Your task to perform on an android device: read, delete, or share a saved page in the chrome app Image 0: 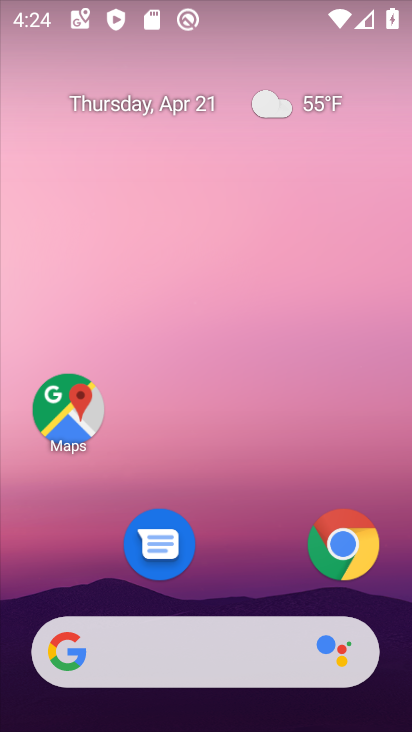
Step 0: drag from (254, 590) to (265, 178)
Your task to perform on an android device: read, delete, or share a saved page in the chrome app Image 1: 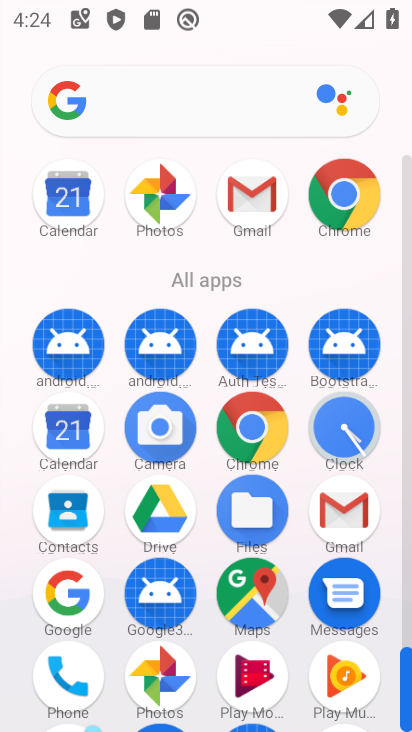
Step 1: click (245, 437)
Your task to perform on an android device: read, delete, or share a saved page in the chrome app Image 2: 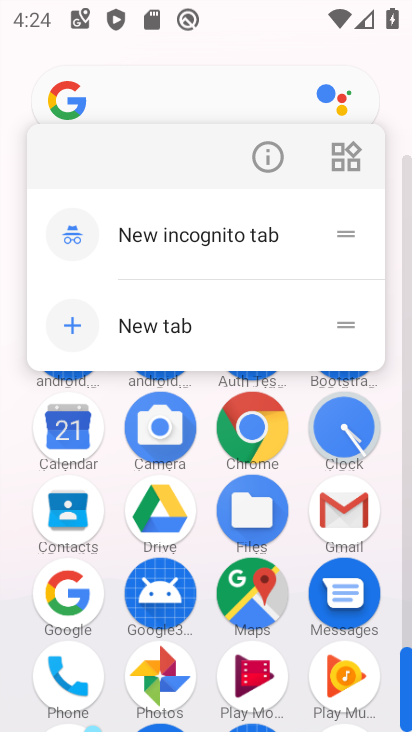
Step 2: click (241, 434)
Your task to perform on an android device: read, delete, or share a saved page in the chrome app Image 3: 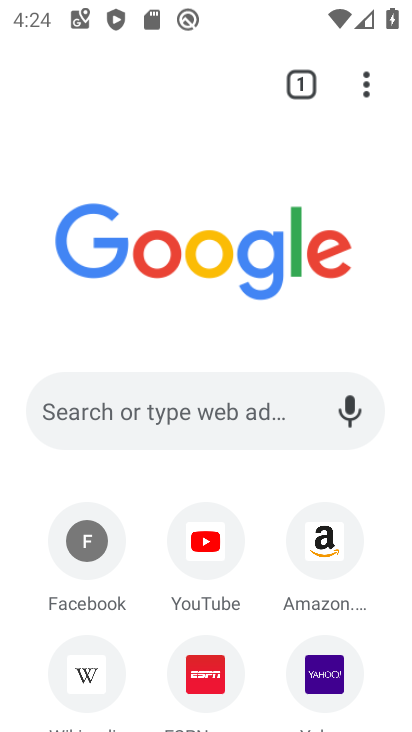
Step 3: drag from (367, 81) to (150, 592)
Your task to perform on an android device: read, delete, or share a saved page in the chrome app Image 4: 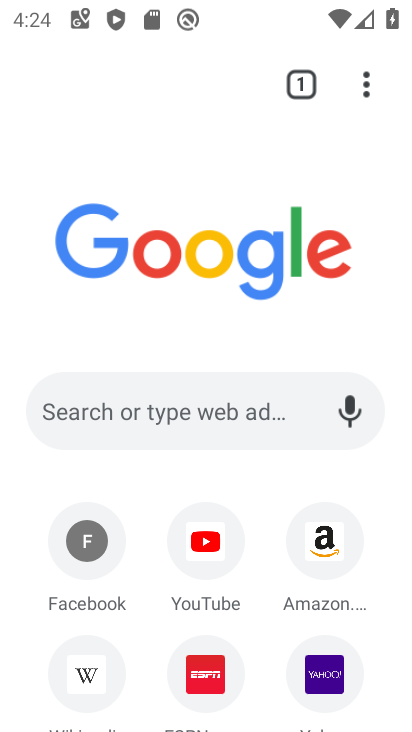
Step 4: click (150, 592)
Your task to perform on an android device: read, delete, or share a saved page in the chrome app Image 5: 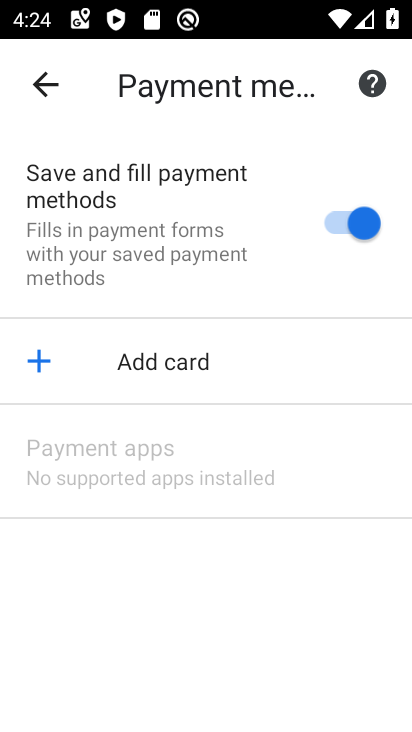
Step 5: click (37, 90)
Your task to perform on an android device: read, delete, or share a saved page in the chrome app Image 6: 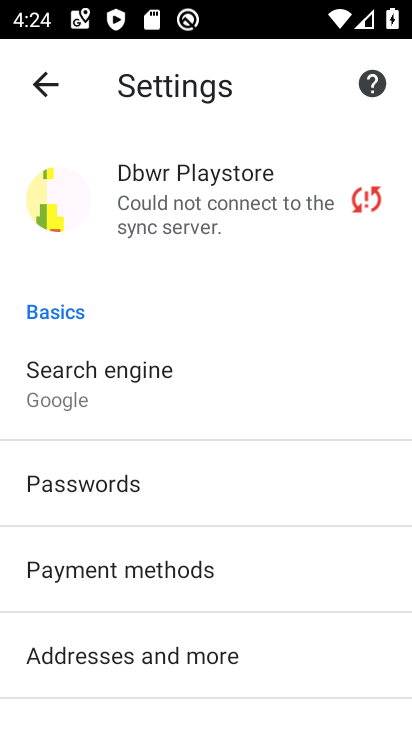
Step 6: task complete